Your task to perform on an android device: Is it going to rain this weekend? Image 0: 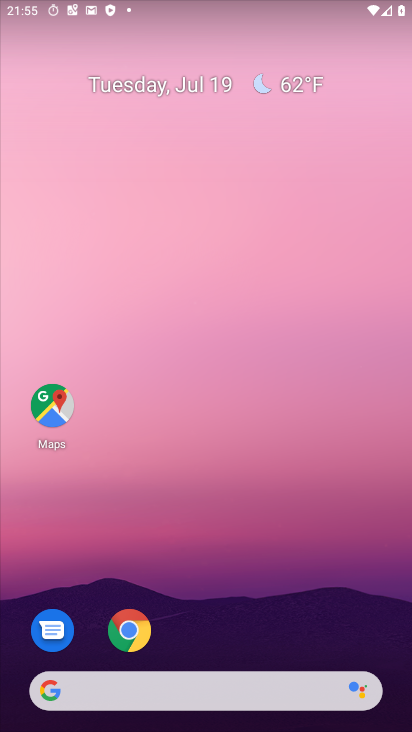
Step 0: click (87, 687)
Your task to perform on an android device: Is it going to rain this weekend? Image 1: 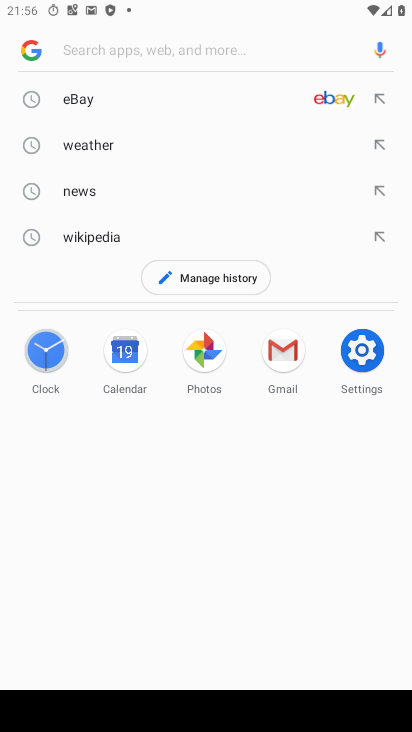
Step 1: type "Is it going to rain this weekend?"
Your task to perform on an android device: Is it going to rain this weekend? Image 2: 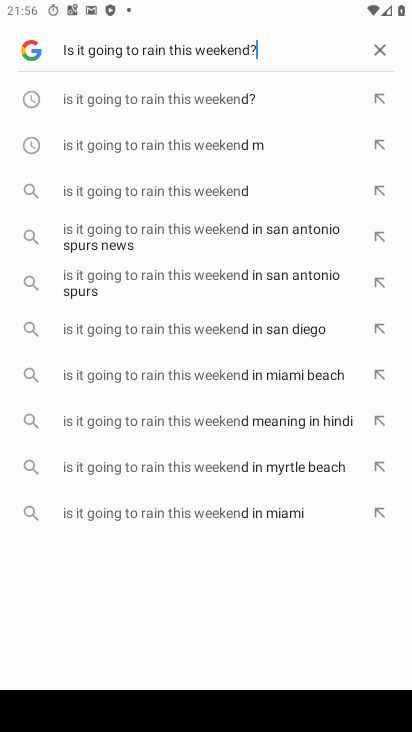
Step 2: type ""
Your task to perform on an android device: Is it going to rain this weekend? Image 3: 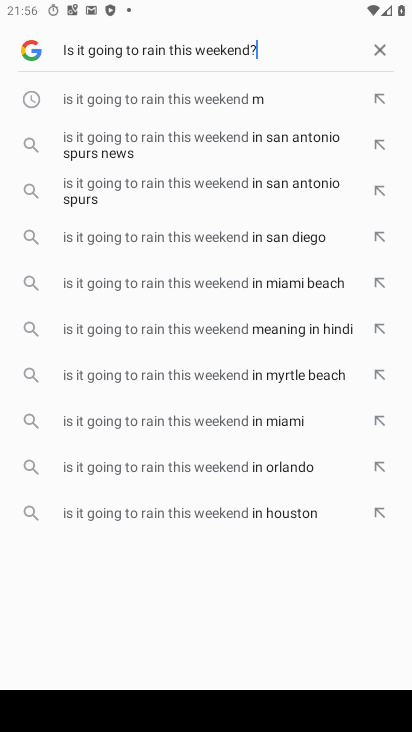
Step 3: task complete